Your task to perform on an android device: Open CNN.com Image 0: 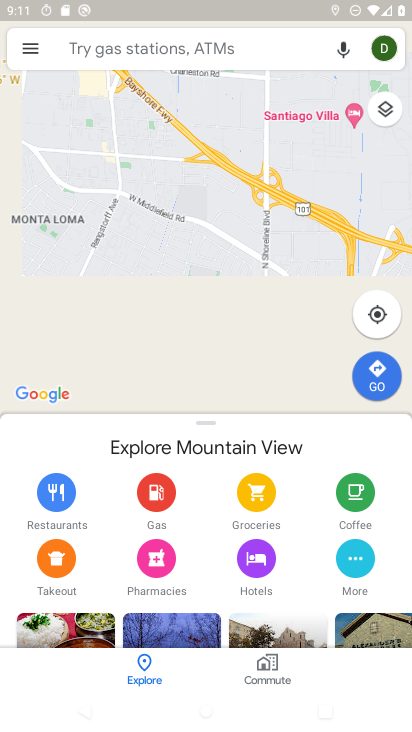
Step 0: press home button
Your task to perform on an android device: Open CNN.com Image 1: 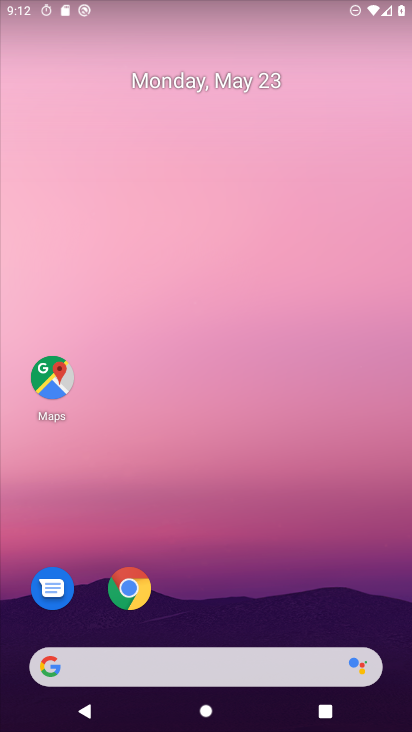
Step 1: click (117, 595)
Your task to perform on an android device: Open CNN.com Image 2: 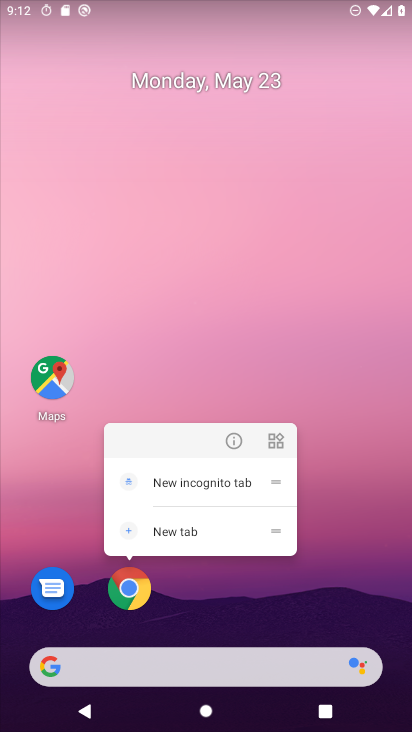
Step 2: click (122, 584)
Your task to perform on an android device: Open CNN.com Image 3: 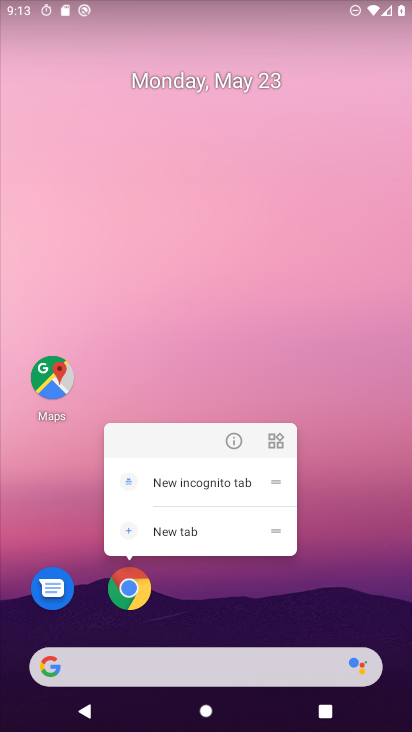
Step 3: click (395, 357)
Your task to perform on an android device: Open CNN.com Image 4: 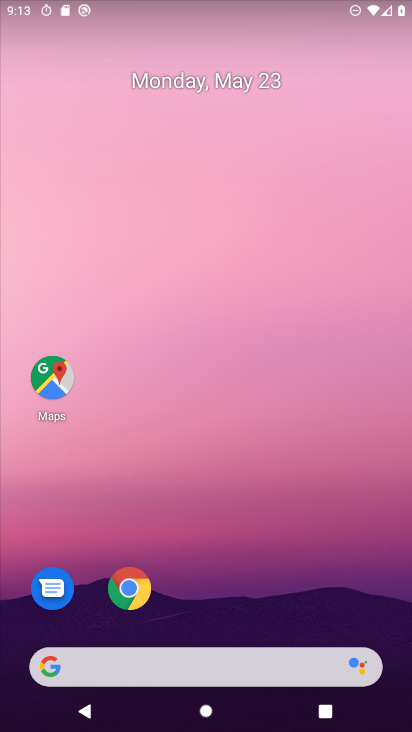
Step 4: click (139, 585)
Your task to perform on an android device: Open CNN.com Image 5: 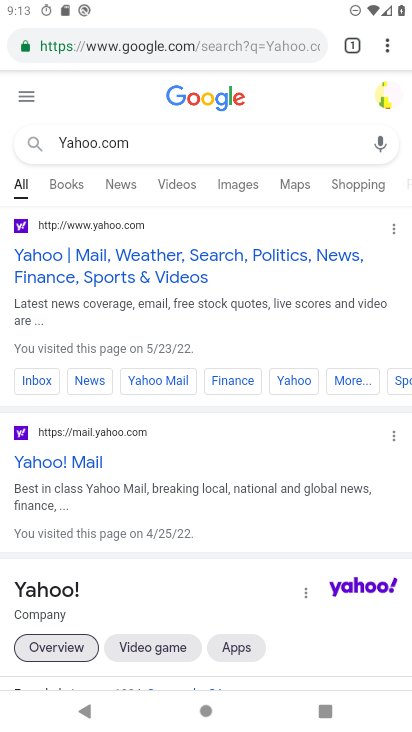
Step 5: click (322, 43)
Your task to perform on an android device: Open CNN.com Image 6: 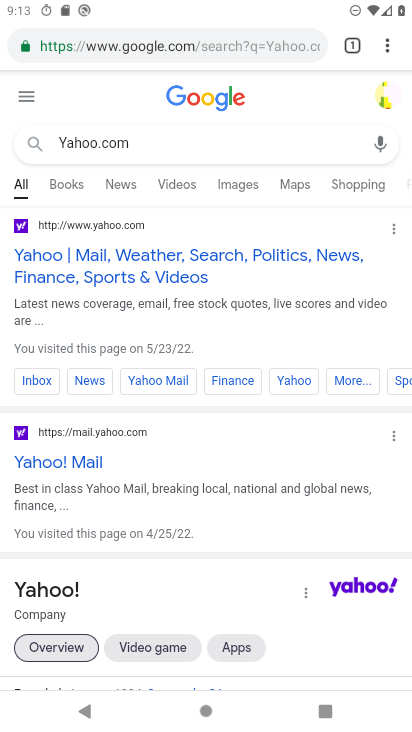
Step 6: click (316, 45)
Your task to perform on an android device: Open CNN.com Image 7: 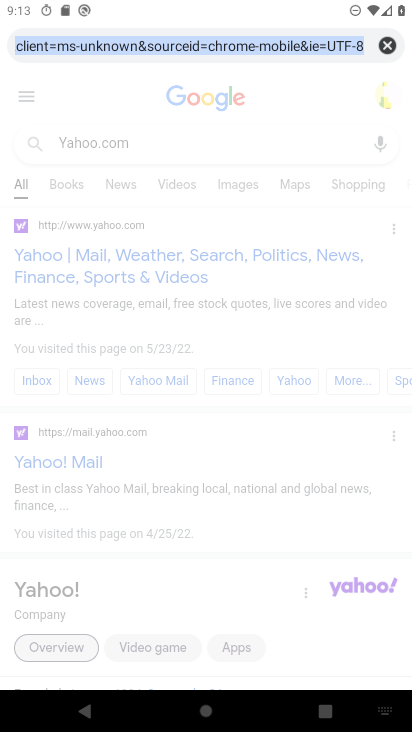
Step 7: click (383, 42)
Your task to perform on an android device: Open CNN.com Image 8: 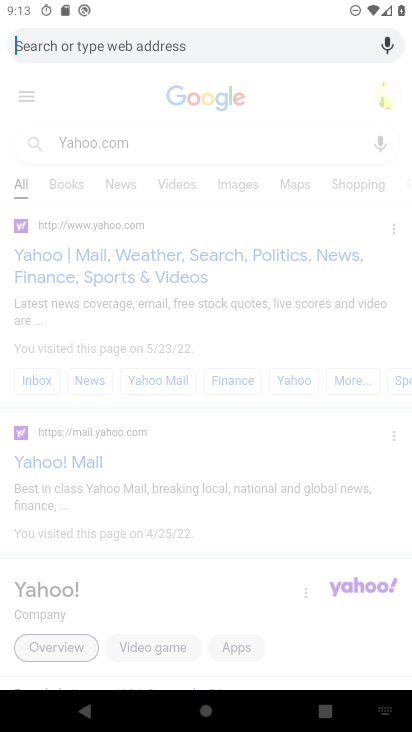
Step 8: type "CNN.com"
Your task to perform on an android device: Open CNN.com Image 9: 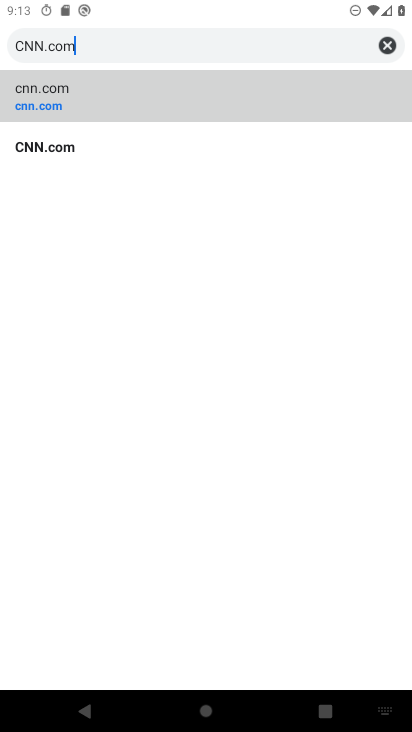
Step 9: click (59, 138)
Your task to perform on an android device: Open CNN.com Image 10: 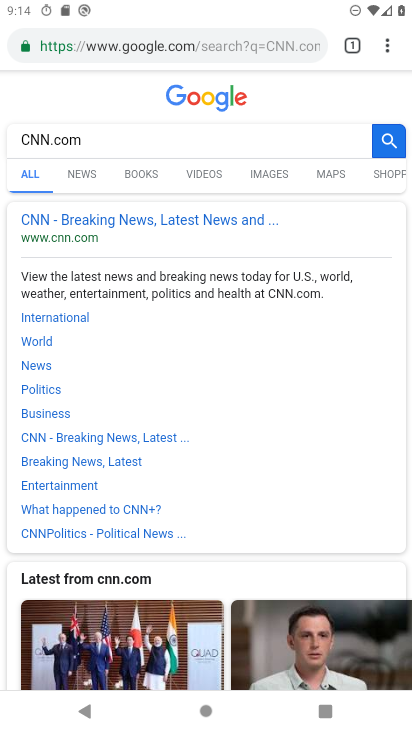
Step 10: task complete